Your task to perform on an android device: check out phone information Image 0: 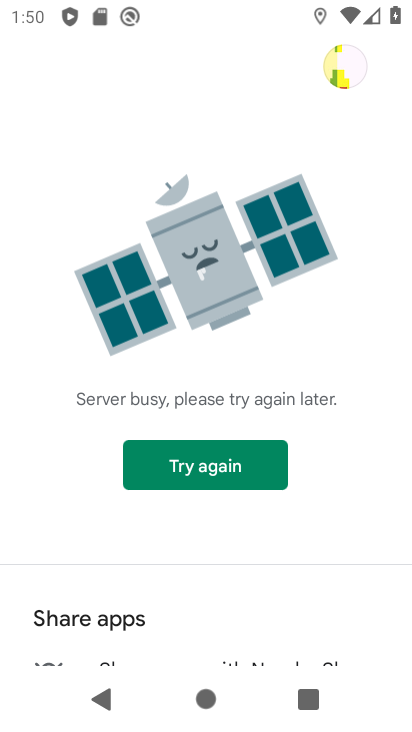
Step 0: press back button
Your task to perform on an android device: check out phone information Image 1: 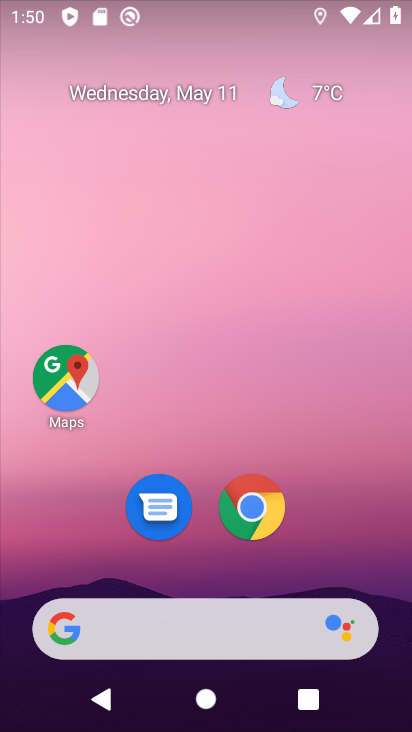
Step 1: drag from (307, 559) to (254, 37)
Your task to perform on an android device: check out phone information Image 2: 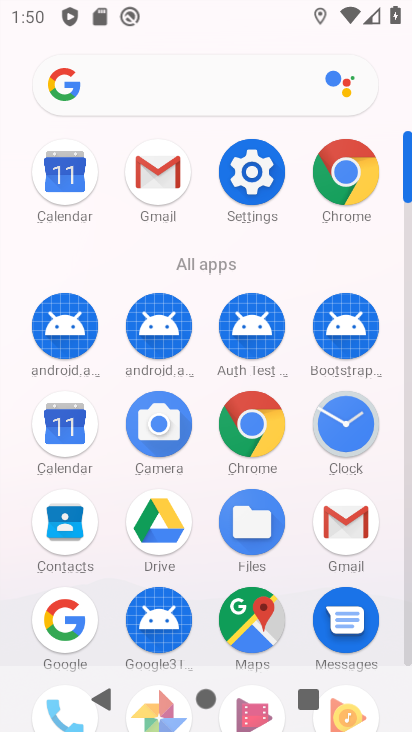
Step 2: click (249, 170)
Your task to perform on an android device: check out phone information Image 3: 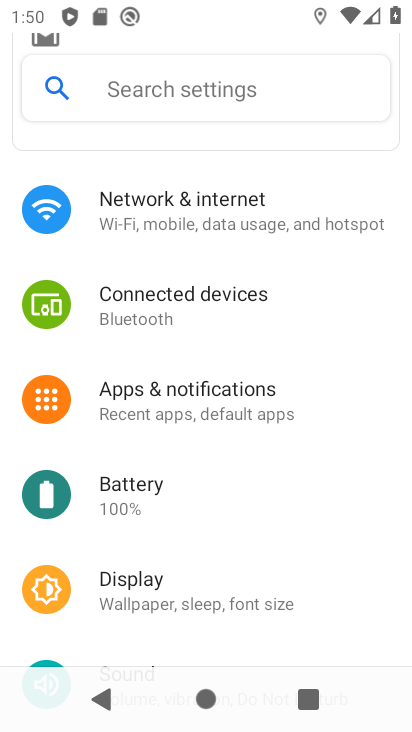
Step 3: drag from (241, 489) to (255, 175)
Your task to perform on an android device: check out phone information Image 4: 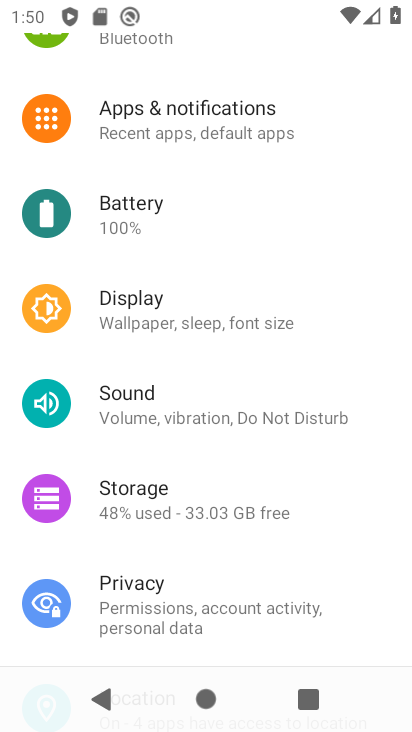
Step 4: drag from (227, 552) to (240, 148)
Your task to perform on an android device: check out phone information Image 5: 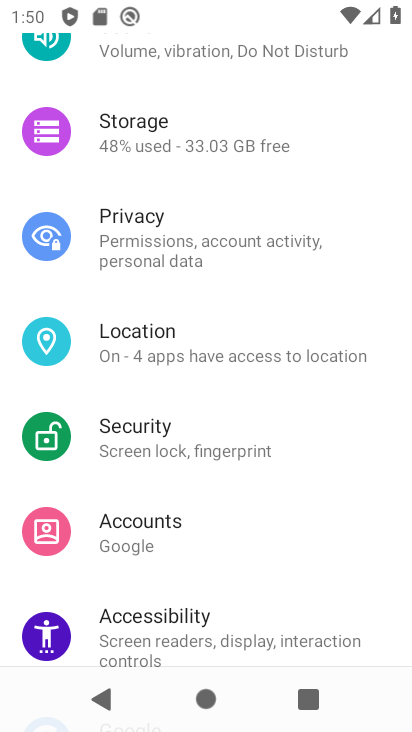
Step 5: drag from (191, 584) to (211, 87)
Your task to perform on an android device: check out phone information Image 6: 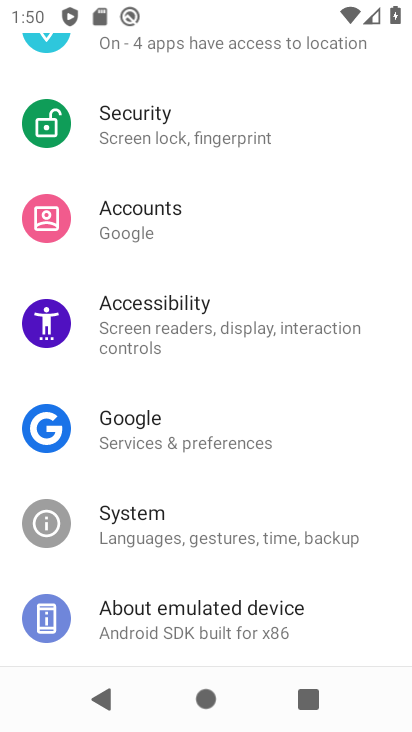
Step 6: drag from (221, 585) to (240, 254)
Your task to perform on an android device: check out phone information Image 7: 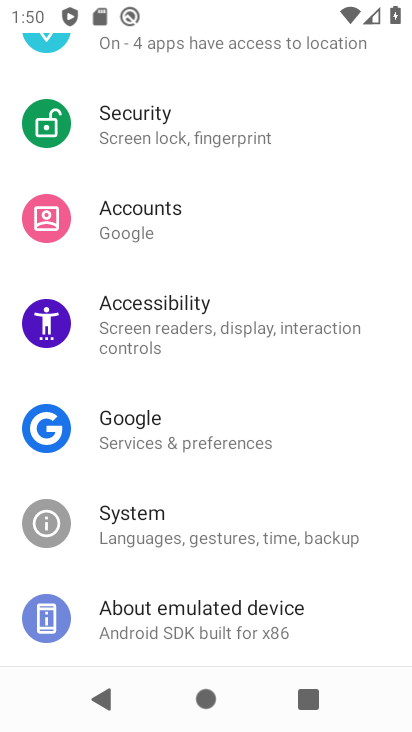
Step 7: click (240, 617)
Your task to perform on an android device: check out phone information Image 8: 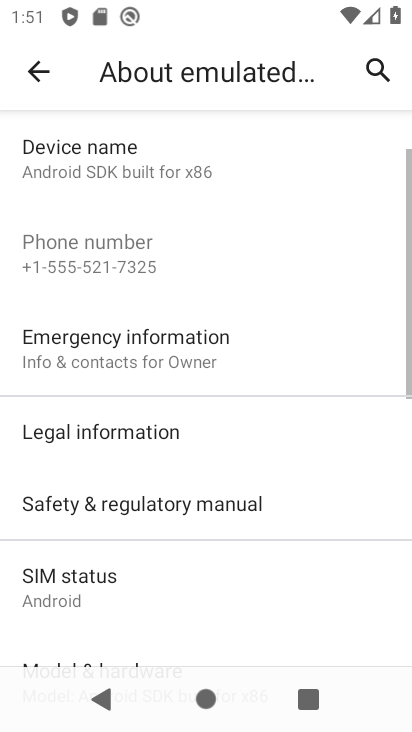
Step 8: task complete